Your task to perform on an android device: Open sound settings Image 0: 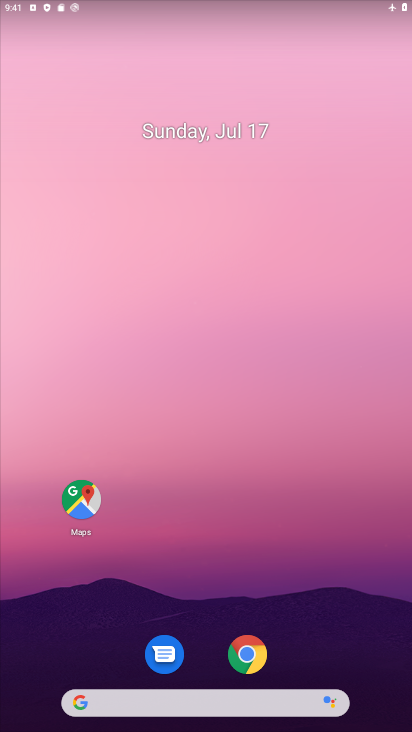
Step 0: drag from (192, 635) to (192, 12)
Your task to perform on an android device: Open sound settings Image 1: 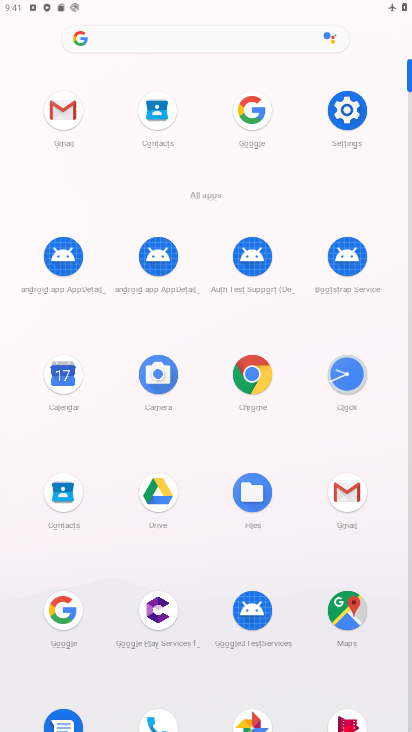
Step 1: click (351, 134)
Your task to perform on an android device: Open sound settings Image 2: 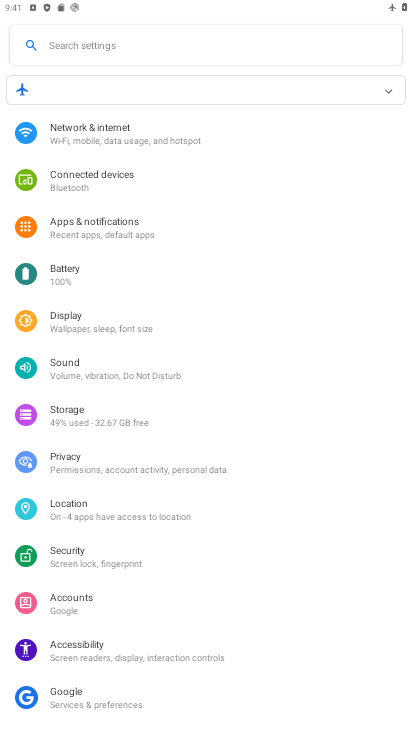
Step 2: click (78, 369)
Your task to perform on an android device: Open sound settings Image 3: 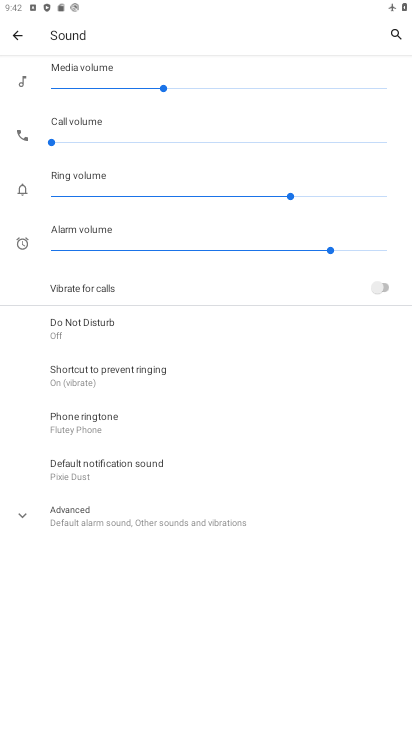
Step 3: task complete